Your task to perform on an android device: show emergency info Image 0: 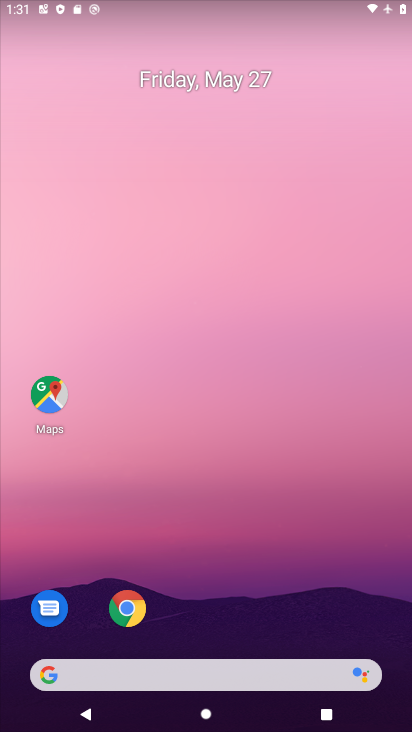
Step 0: press home button
Your task to perform on an android device: show emergency info Image 1: 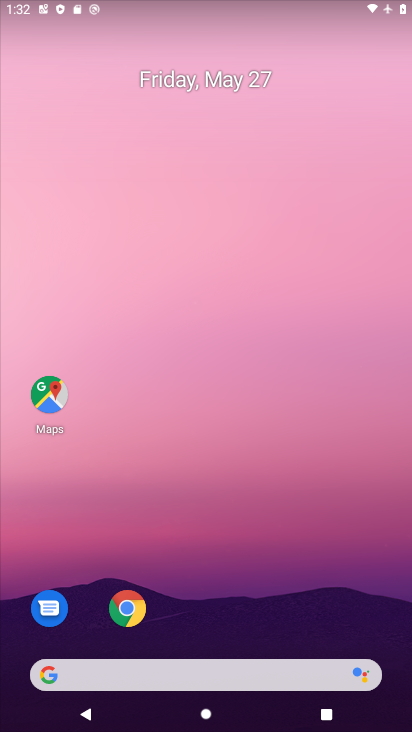
Step 1: drag from (130, 669) to (231, 126)
Your task to perform on an android device: show emergency info Image 2: 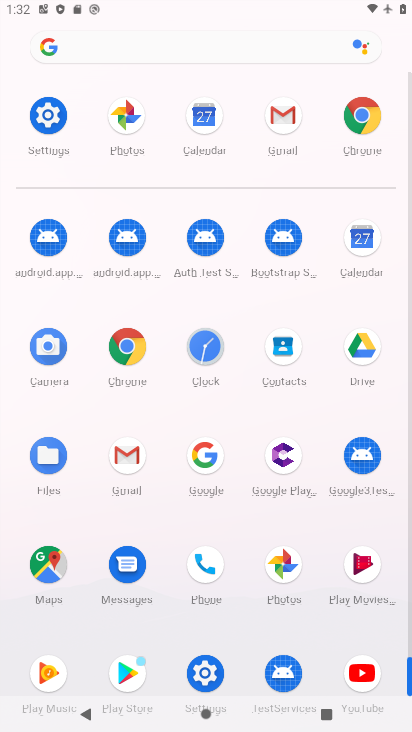
Step 2: click (48, 114)
Your task to perform on an android device: show emergency info Image 3: 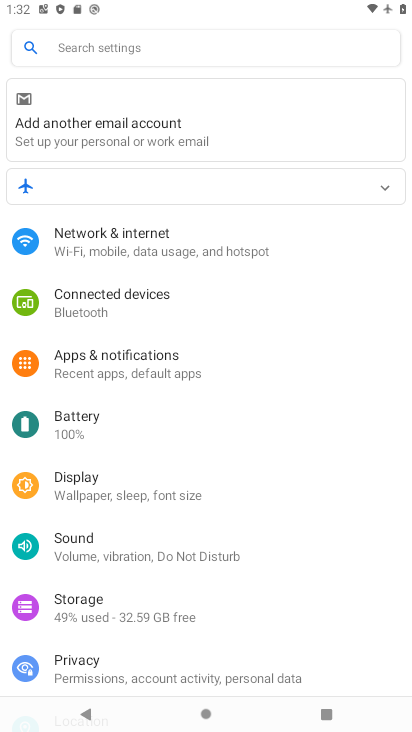
Step 3: drag from (224, 625) to (324, 54)
Your task to perform on an android device: show emergency info Image 4: 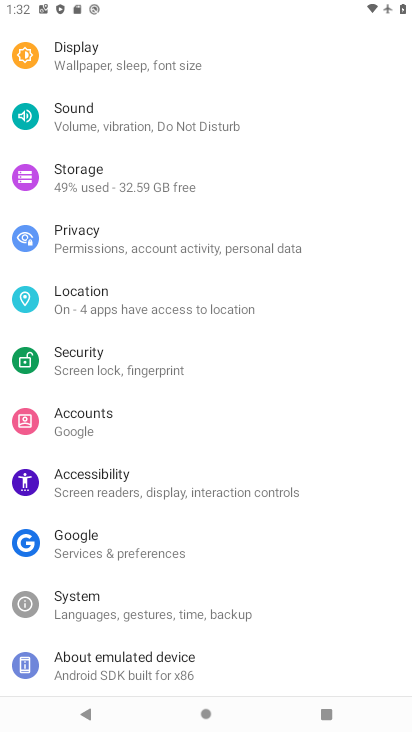
Step 4: drag from (244, 594) to (324, 150)
Your task to perform on an android device: show emergency info Image 5: 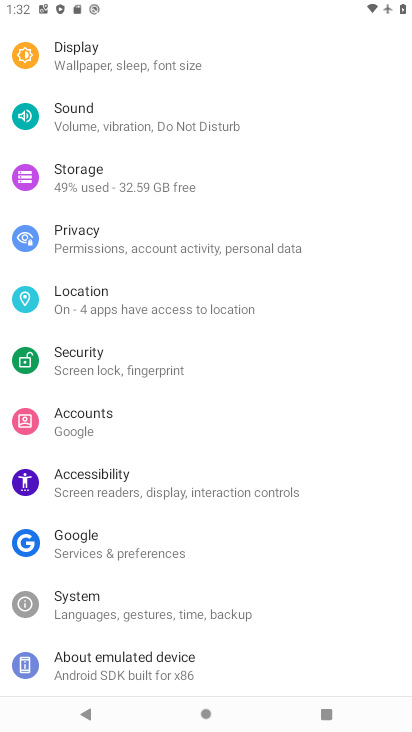
Step 5: click (165, 672)
Your task to perform on an android device: show emergency info Image 6: 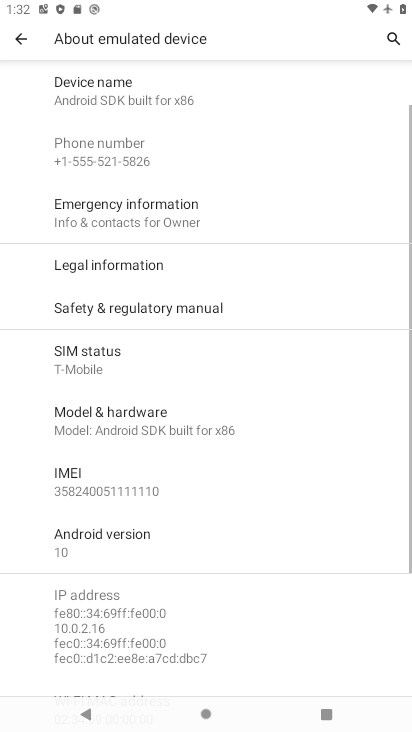
Step 6: click (158, 216)
Your task to perform on an android device: show emergency info Image 7: 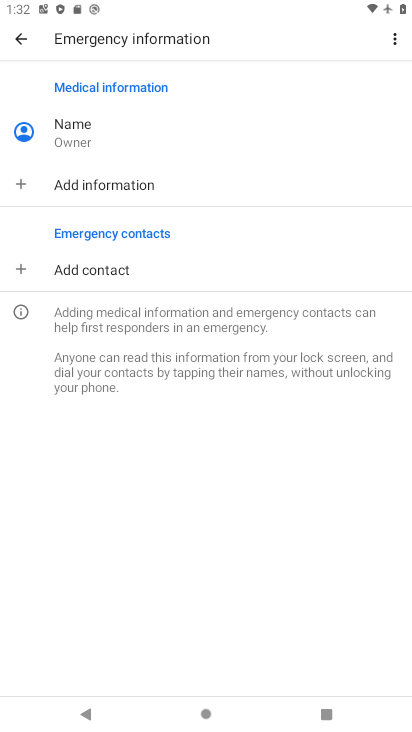
Step 7: task complete